Your task to perform on an android device: Go to ESPN.com Image 0: 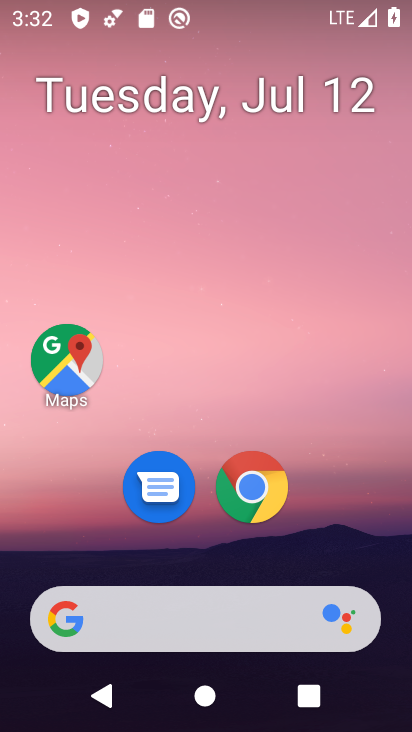
Step 0: drag from (253, 581) to (205, 33)
Your task to perform on an android device: Go to ESPN.com Image 1: 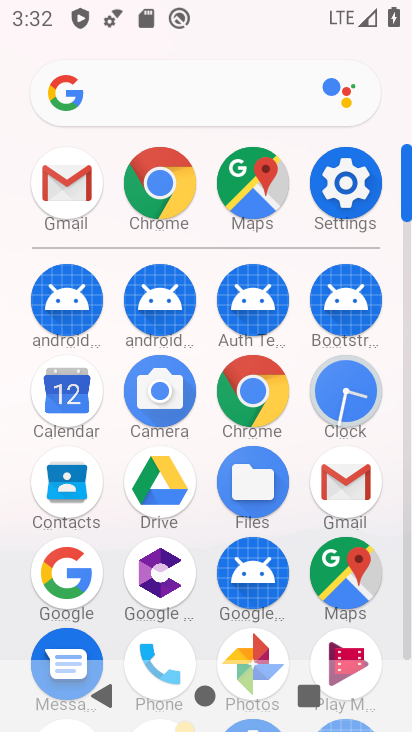
Step 1: click (164, 196)
Your task to perform on an android device: Go to ESPN.com Image 2: 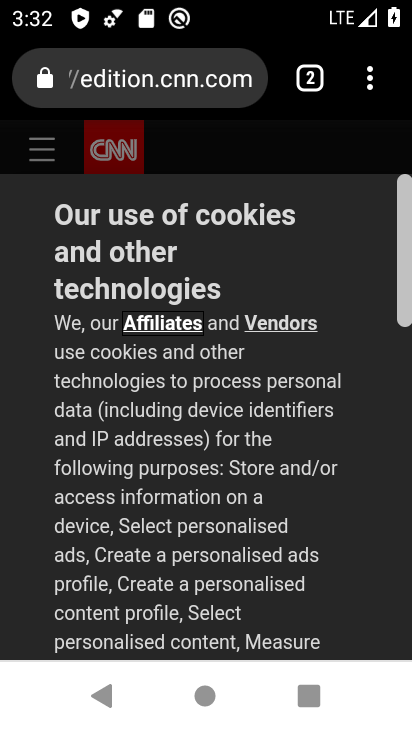
Step 2: click (154, 88)
Your task to perform on an android device: Go to ESPN.com Image 3: 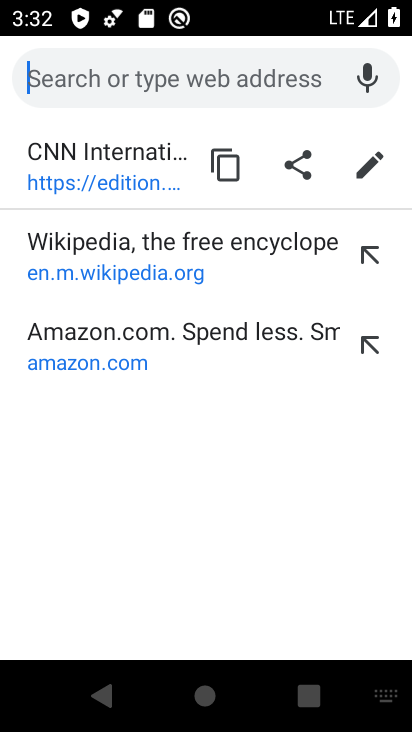
Step 3: type "espn"
Your task to perform on an android device: Go to ESPN.com Image 4: 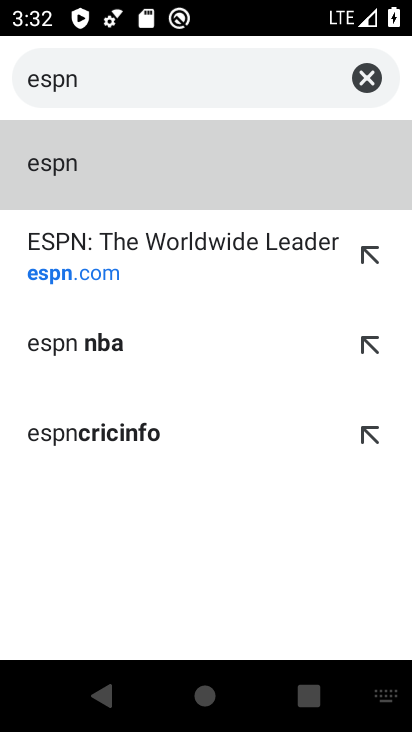
Step 4: click (199, 273)
Your task to perform on an android device: Go to ESPN.com Image 5: 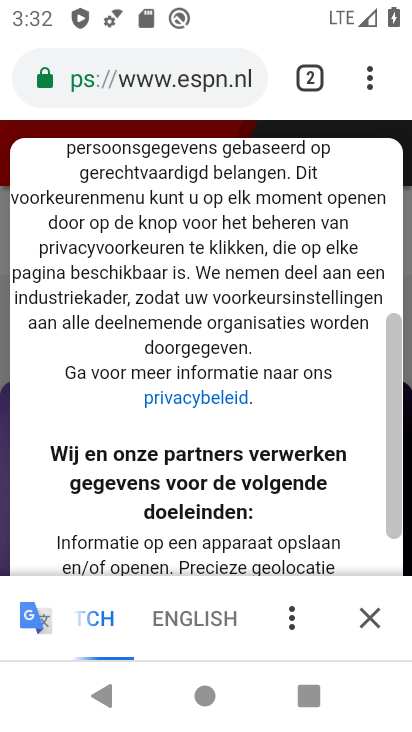
Step 5: task complete